Your task to perform on an android device: turn on improve location accuracy Image 0: 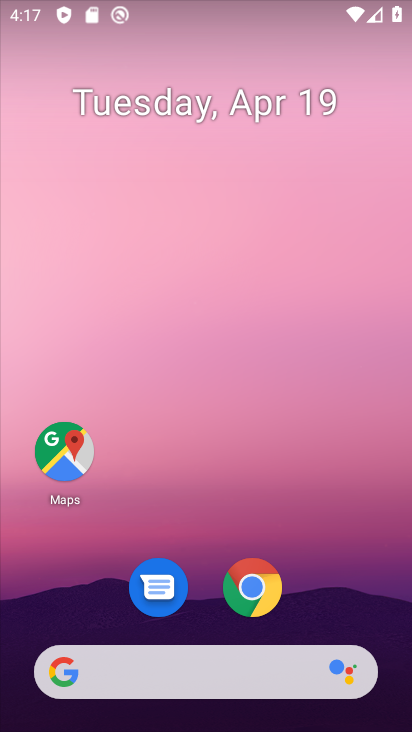
Step 0: drag from (335, 511) to (248, 43)
Your task to perform on an android device: turn on improve location accuracy Image 1: 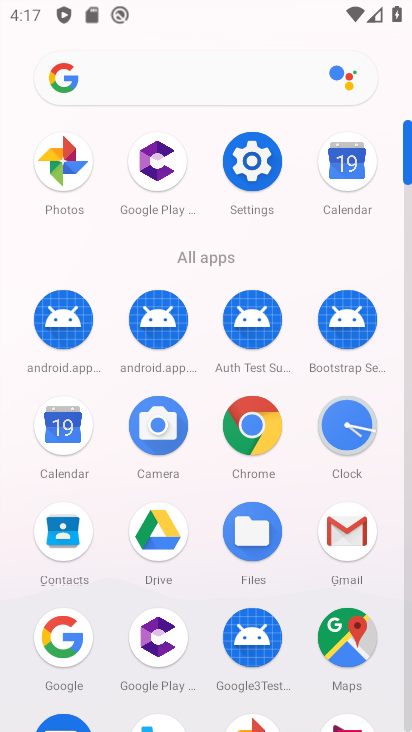
Step 1: click (250, 163)
Your task to perform on an android device: turn on improve location accuracy Image 2: 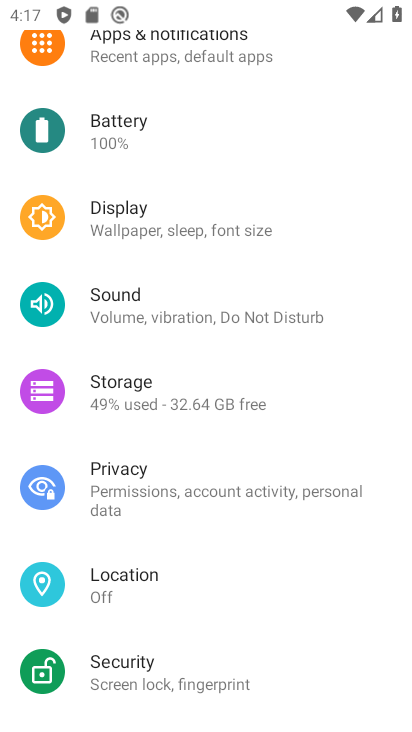
Step 2: drag from (255, 163) to (259, 430)
Your task to perform on an android device: turn on improve location accuracy Image 3: 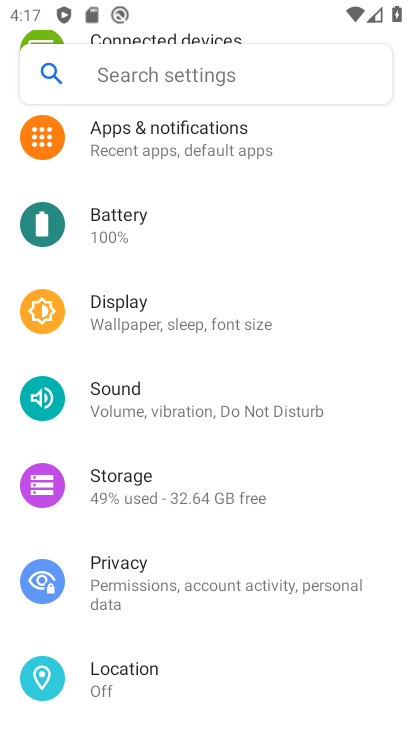
Step 3: drag from (243, 171) to (240, 526)
Your task to perform on an android device: turn on improve location accuracy Image 4: 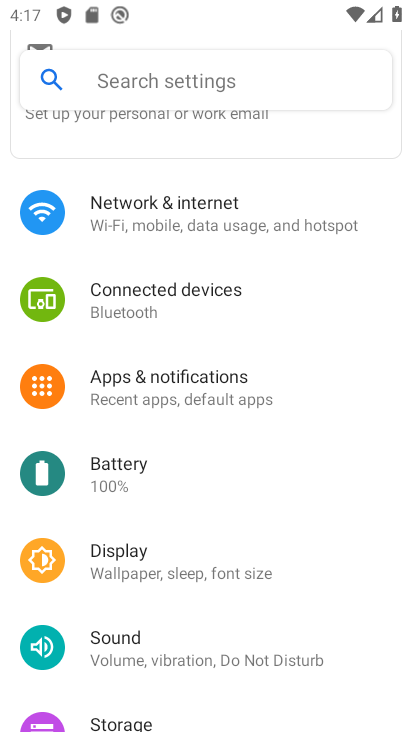
Step 4: drag from (232, 463) to (226, 191)
Your task to perform on an android device: turn on improve location accuracy Image 5: 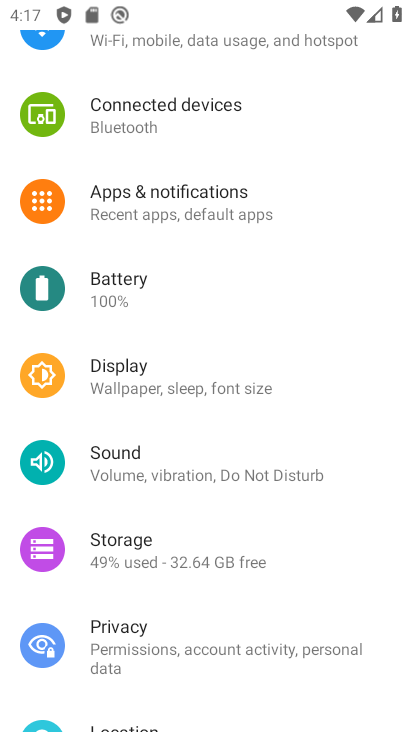
Step 5: drag from (225, 623) to (225, 242)
Your task to perform on an android device: turn on improve location accuracy Image 6: 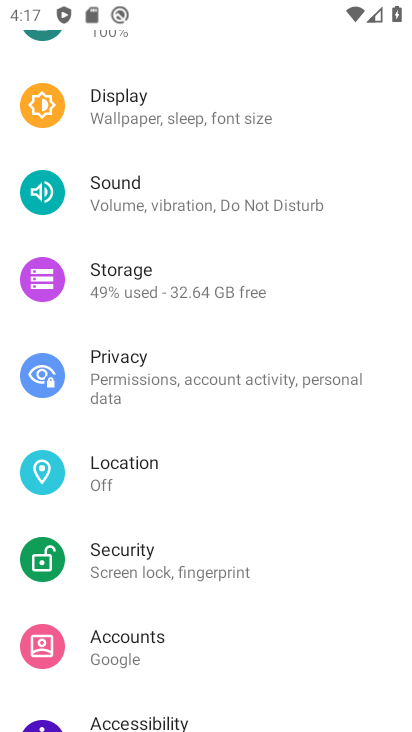
Step 6: click (136, 484)
Your task to perform on an android device: turn on improve location accuracy Image 7: 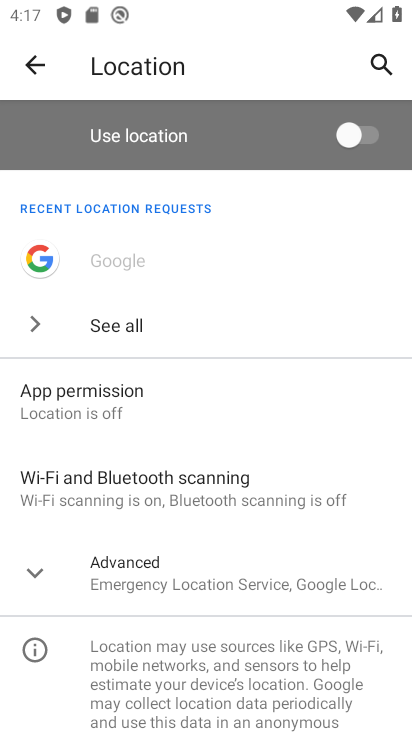
Step 7: click (186, 599)
Your task to perform on an android device: turn on improve location accuracy Image 8: 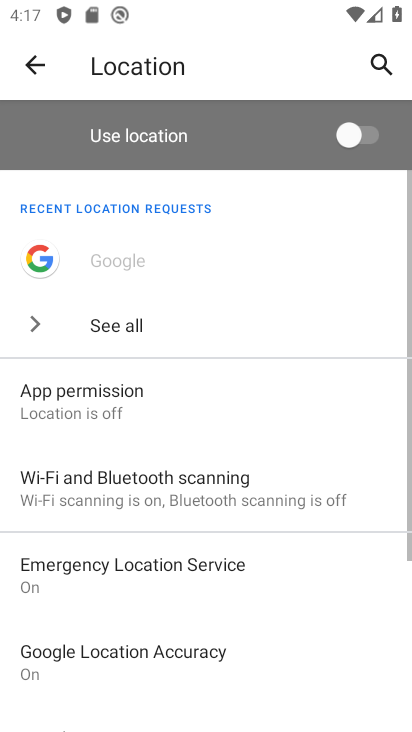
Step 8: drag from (238, 628) to (265, 258)
Your task to perform on an android device: turn on improve location accuracy Image 9: 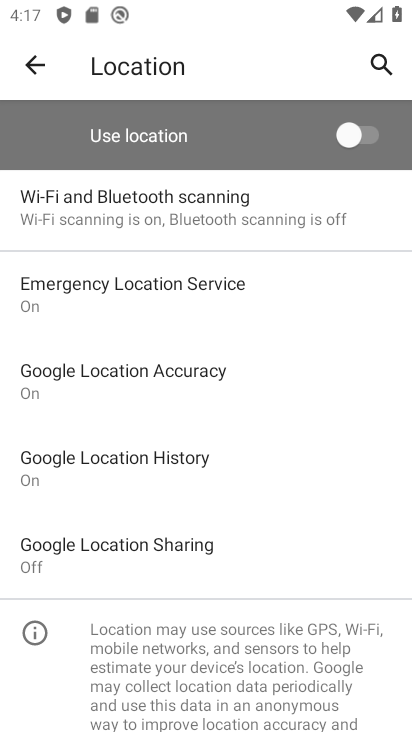
Step 9: click (191, 383)
Your task to perform on an android device: turn on improve location accuracy Image 10: 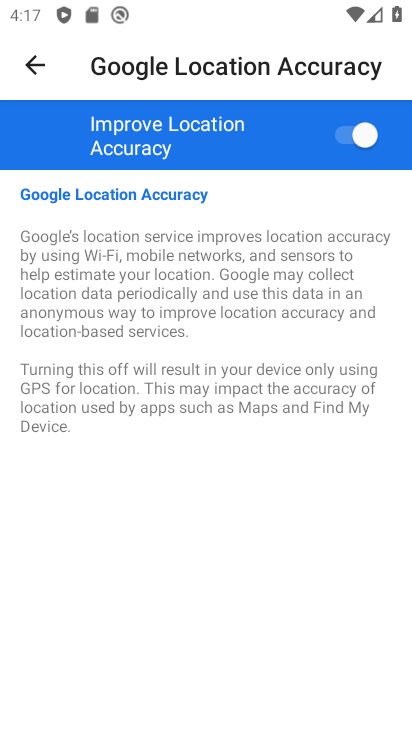
Step 10: task complete